Your task to perform on an android device: Open my contact list Image 0: 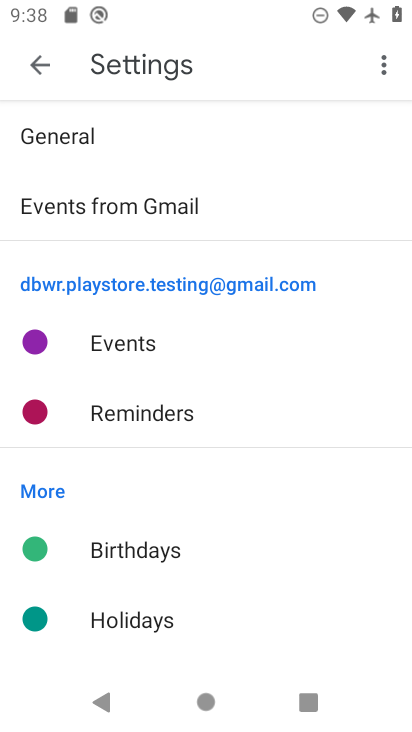
Step 0: press home button
Your task to perform on an android device: Open my contact list Image 1: 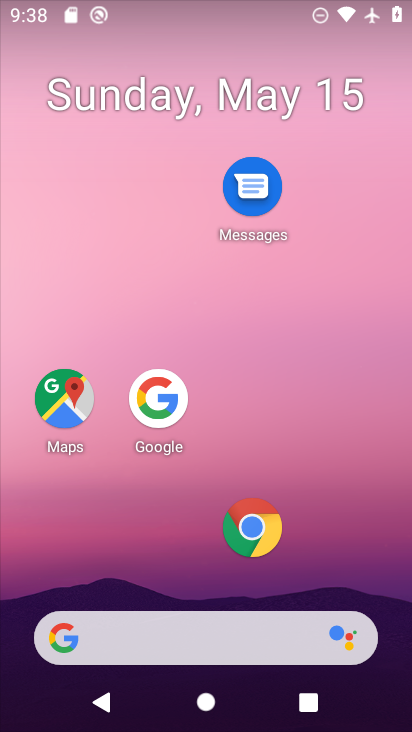
Step 1: drag from (225, 366) to (275, 145)
Your task to perform on an android device: Open my contact list Image 2: 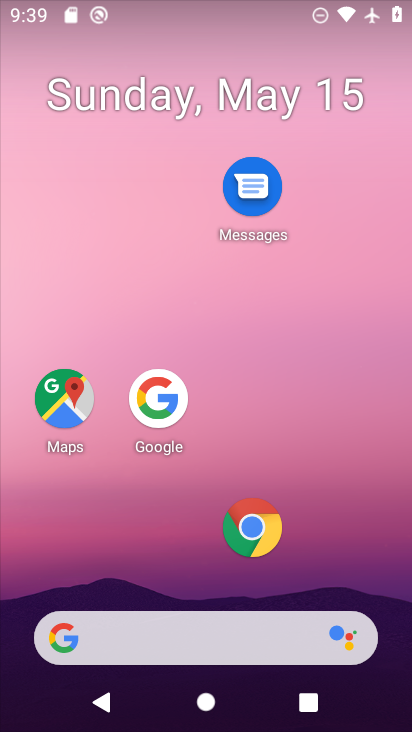
Step 2: drag from (154, 629) to (278, 128)
Your task to perform on an android device: Open my contact list Image 3: 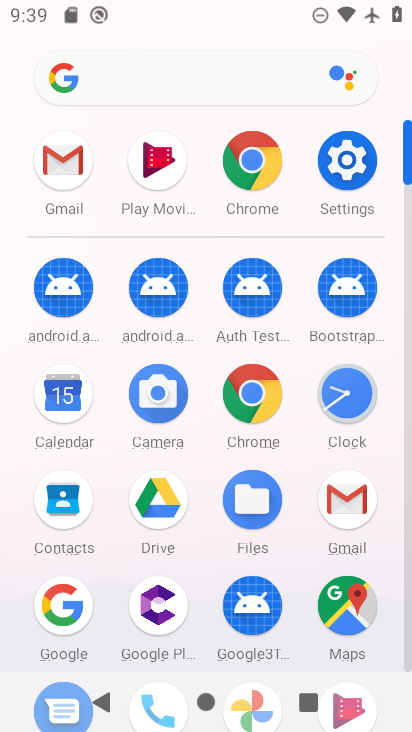
Step 3: click (71, 510)
Your task to perform on an android device: Open my contact list Image 4: 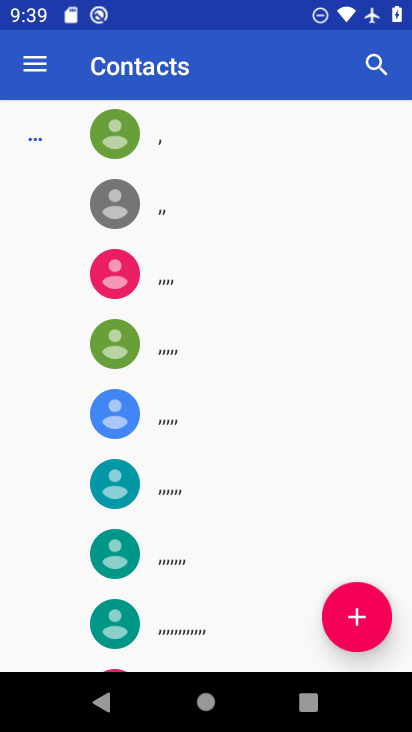
Step 4: task complete